Your task to perform on an android device: Go to internet settings Image 0: 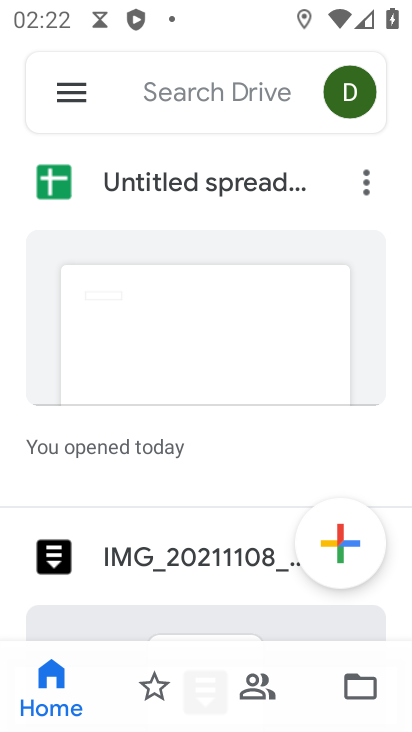
Step 0: press home button
Your task to perform on an android device: Go to internet settings Image 1: 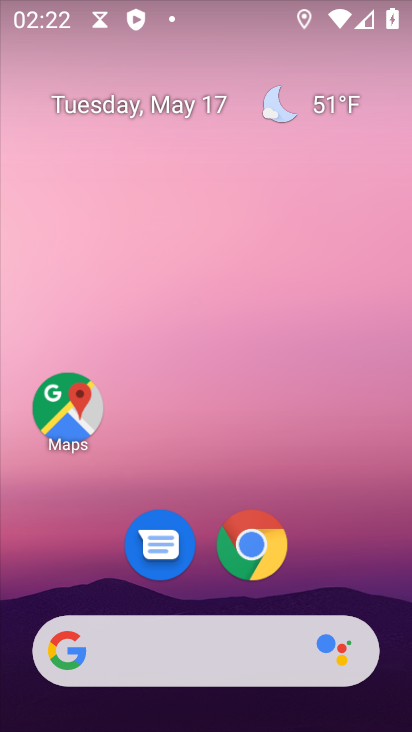
Step 1: drag from (194, 594) to (237, 13)
Your task to perform on an android device: Go to internet settings Image 2: 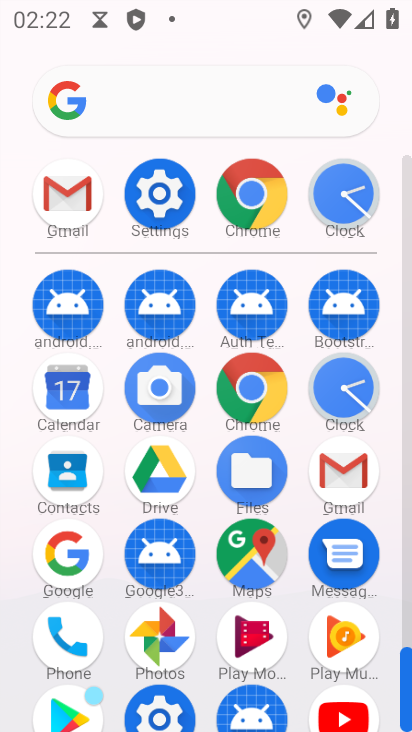
Step 2: click (158, 190)
Your task to perform on an android device: Go to internet settings Image 3: 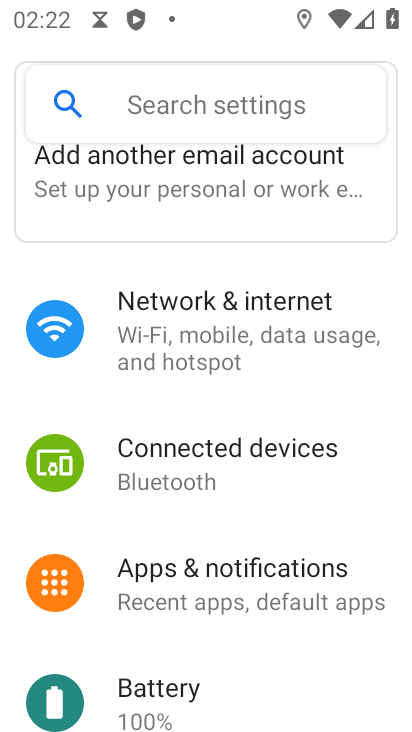
Step 3: click (230, 326)
Your task to perform on an android device: Go to internet settings Image 4: 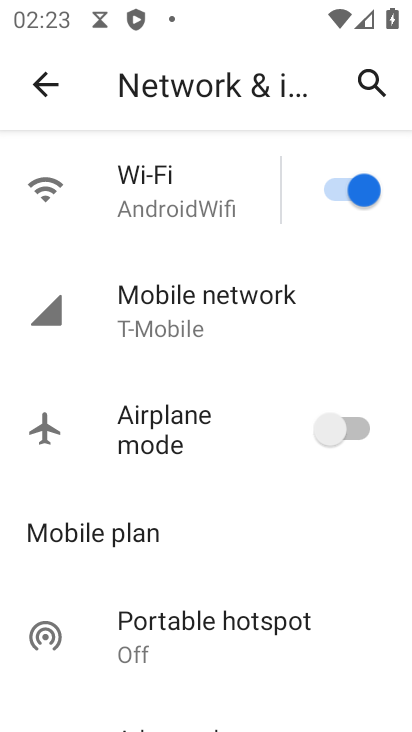
Step 4: task complete